Your task to perform on an android device: Open the phone app and click the voicemail tab. Image 0: 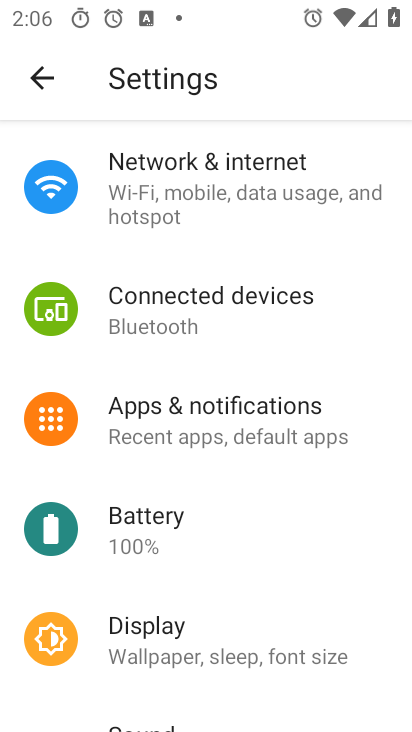
Step 0: press home button
Your task to perform on an android device: Open the phone app and click the voicemail tab. Image 1: 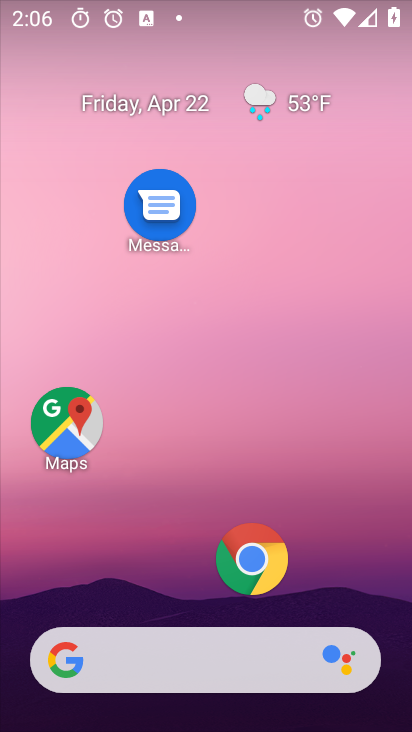
Step 1: drag from (180, 520) to (209, 293)
Your task to perform on an android device: Open the phone app and click the voicemail tab. Image 2: 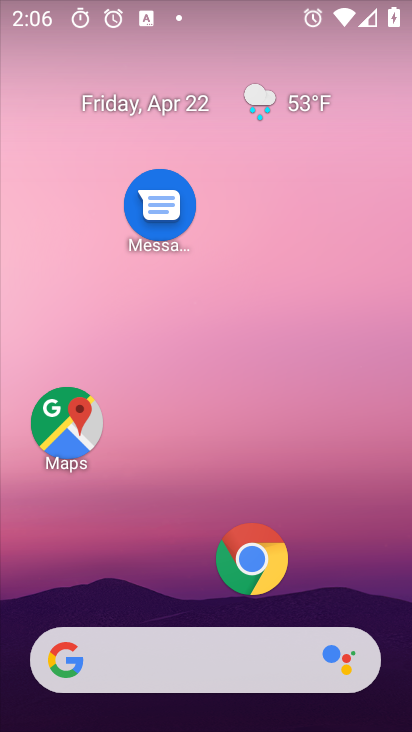
Step 2: drag from (172, 542) to (264, 147)
Your task to perform on an android device: Open the phone app and click the voicemail tab. Image 3: 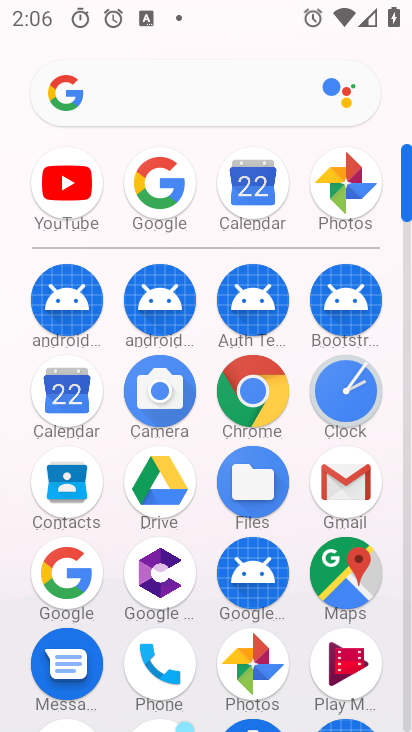
Step 3: click (151, 663)
Your task to perform on an android device: Open the phone app and click the voicemail tab. Image 4: 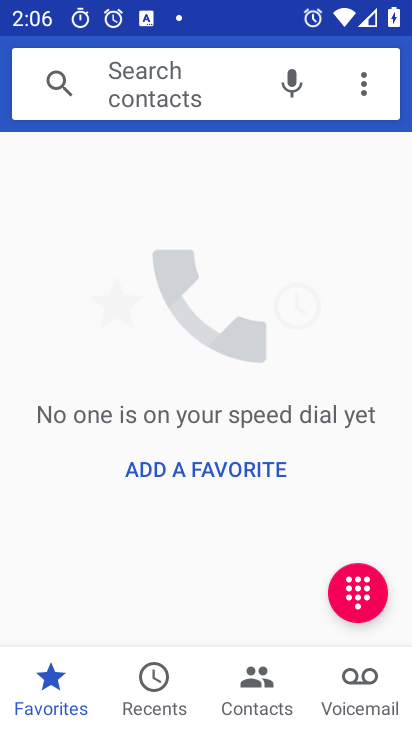
Step 4: click (358, 694)
Your task to perform on an android device: Open the phone app and click the voicemail tab. Image 5: 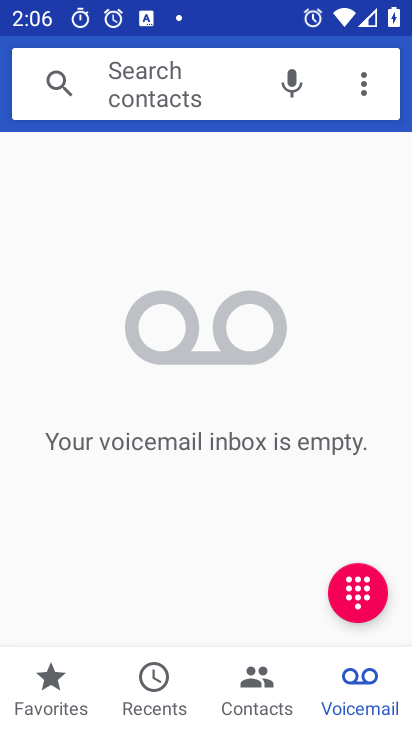
Step 5: task complete